Your task to perform on an android device: change timer sound Image 0: 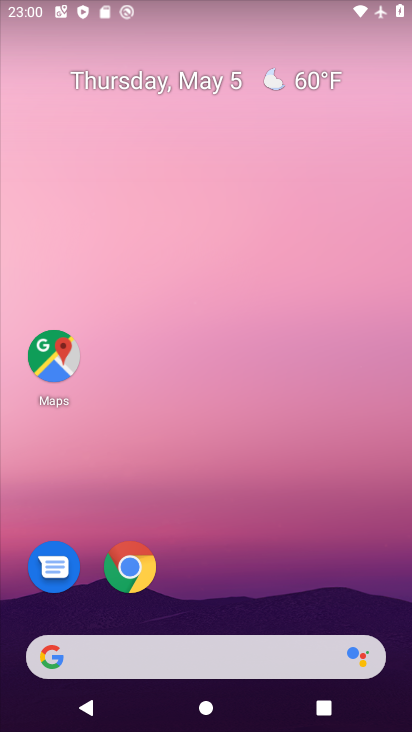
Step 0: drag from (216, 603) to (214, 204)
Your task to perform on an android device: change timer sound Image 1: 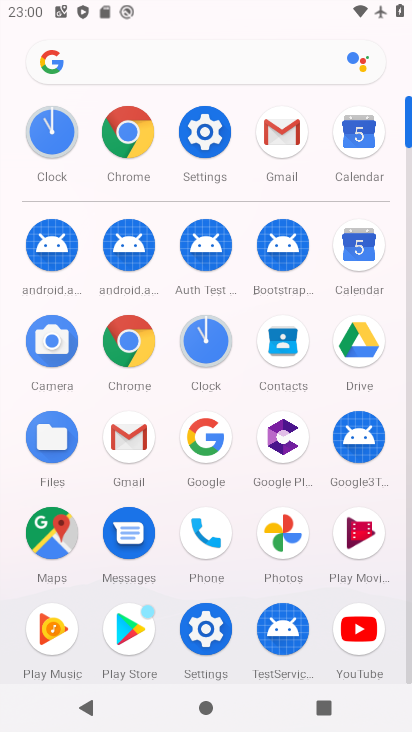
Step 1: click (206, 346)
Your task to perform on an android device: change timer sound Image 2: 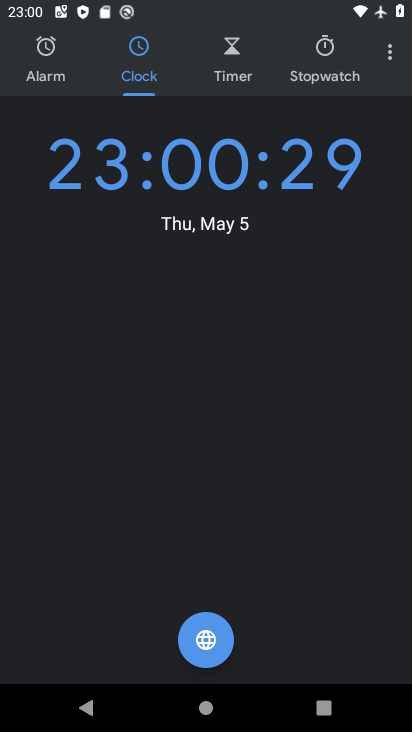
Step 2: click (383, 63)
Your task to perform on an android device: change timer sound Image 3: 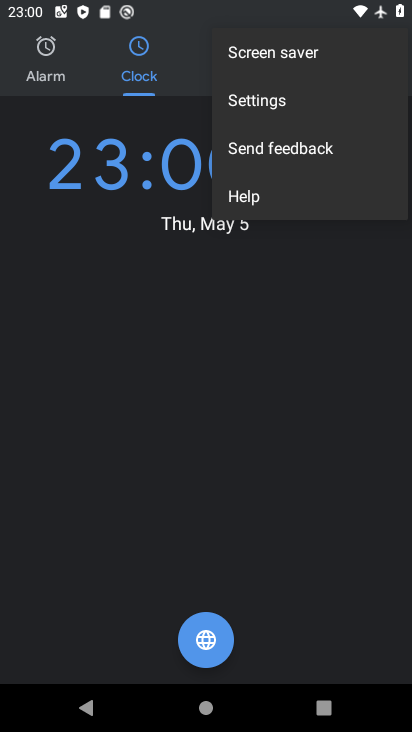
Step 3: click (304, 93)
Your task to perform on an android device: change timer sound Image 4: 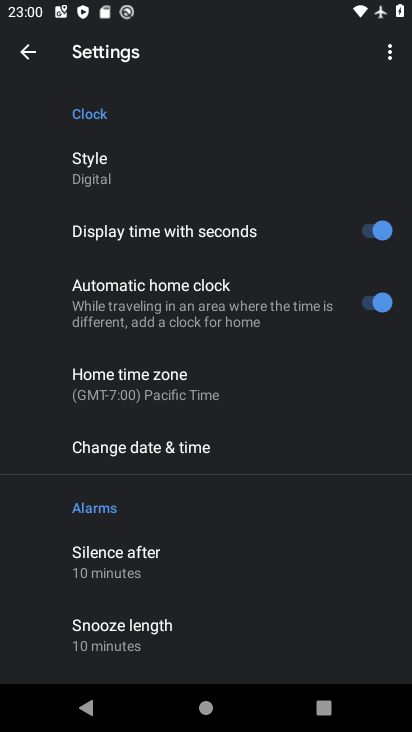
Step 4: drag from (193, 624) to (187, 292)
Your task to perform on an android device: change timer sound Image 5: 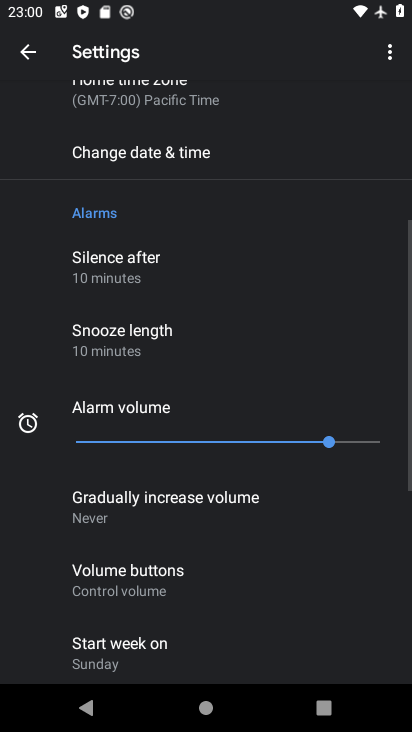
Step 5: drag from (192, 615) to (202, 345)
Your task to perform on an android device: change timer sound Image 6: 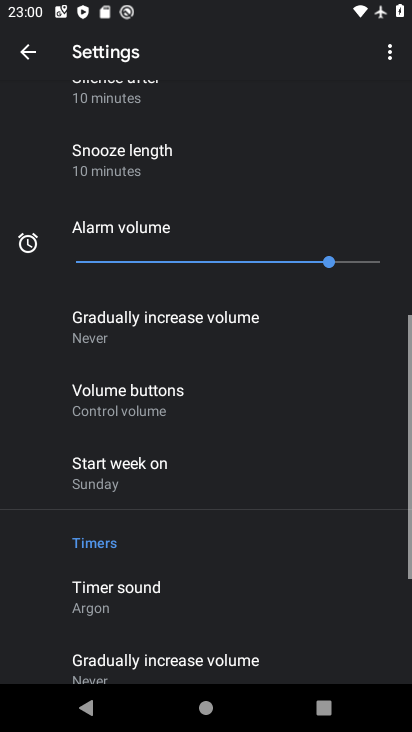
Step 6: click (167, 584)
Your task to perform on an android device: change timer sound Image 7: 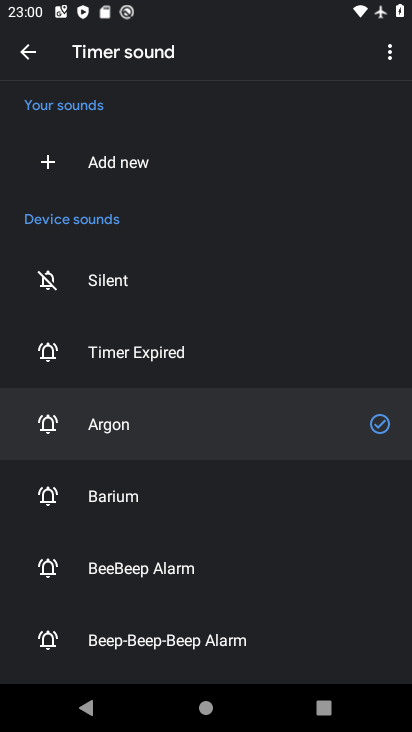
Step 7: click (153, 492)
Your task to perform on an android device: change timer sound Image 8: 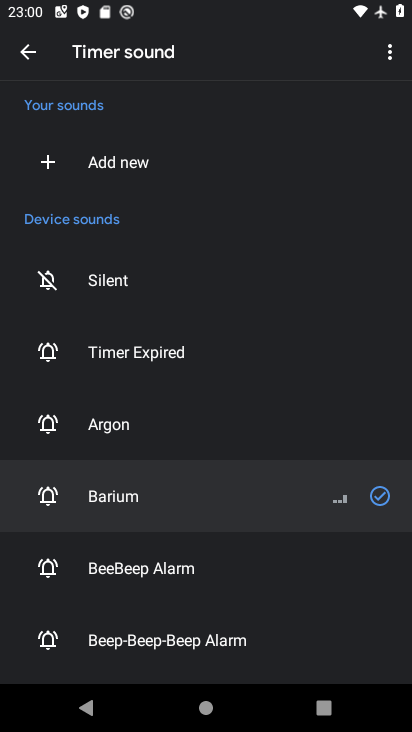
Step 8: task complete